Your task to perform on an android device: turn on wifi Image 0: 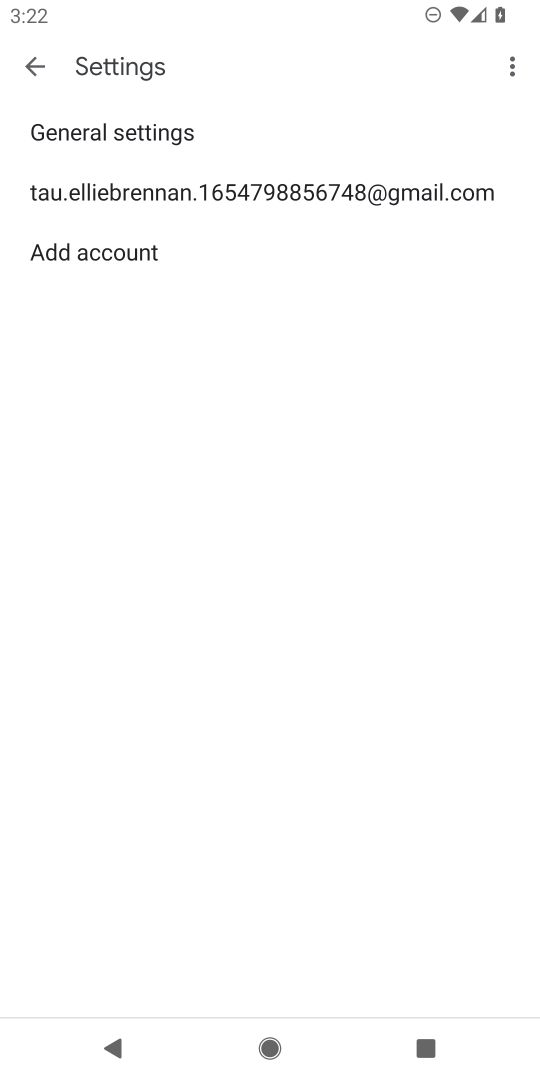
Step 0: press home button
Your task to perform on an android device: turn on wifi Image 1: 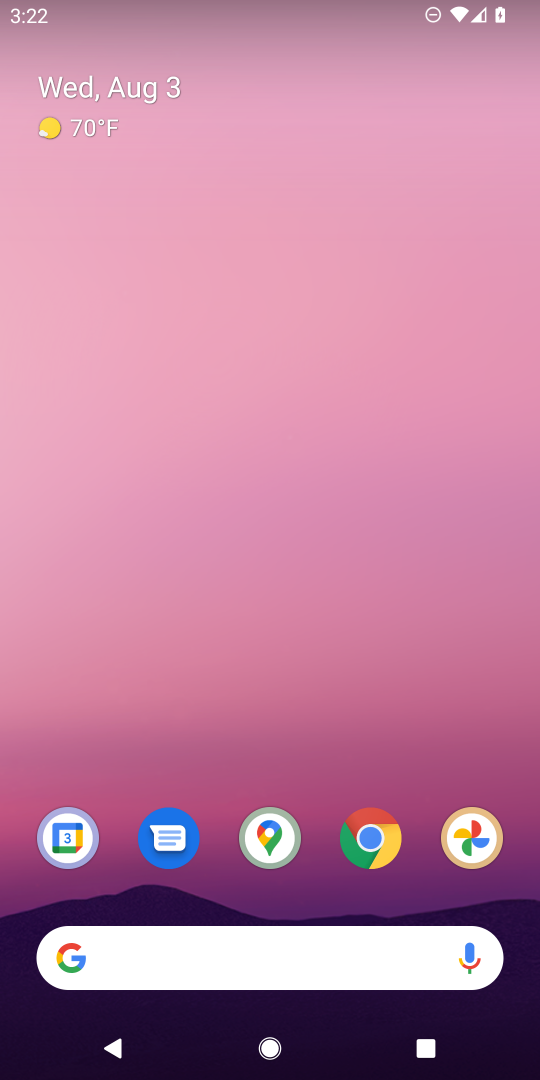
Step 1: drag from (210, 880) to (214, 266)
Your task to perform on an android device: turn on wifi Image 2: 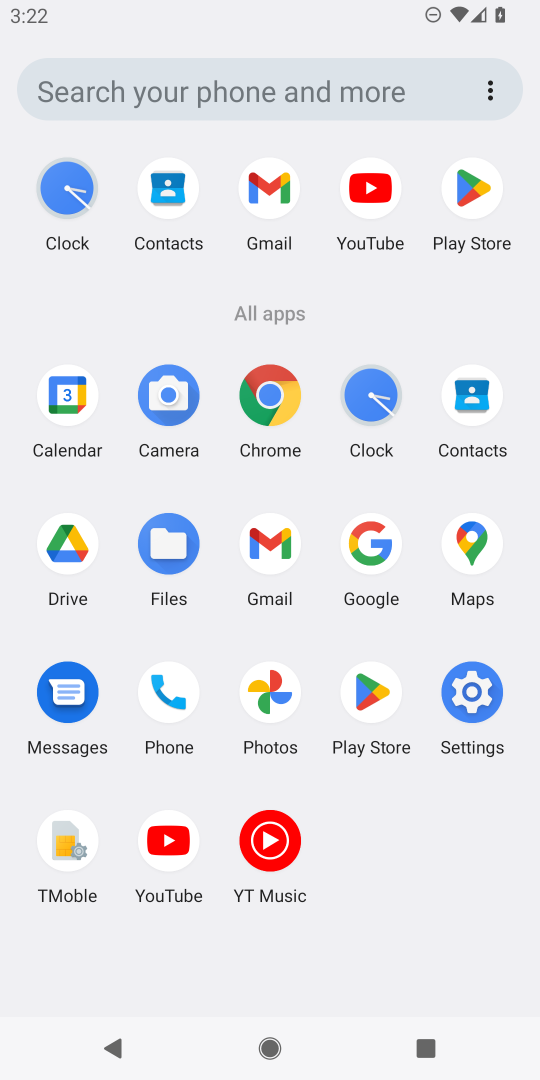
Step 2: click (497, 709)
Your task to perform on an android device: turn on wifi Image 3: 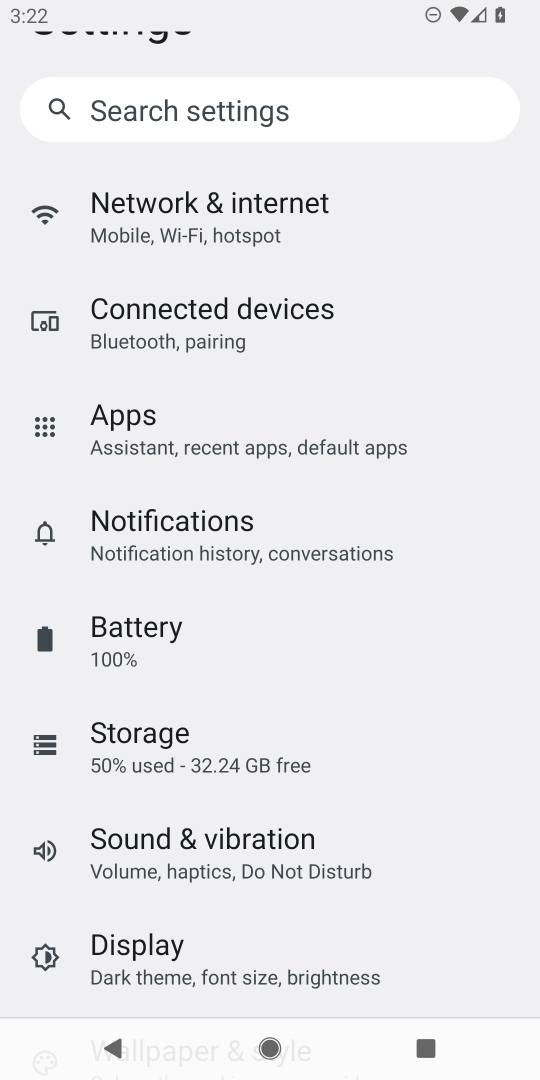
Step 3: click (228, 209)
Your task to perform on an android device: turn on wifi Image 4: 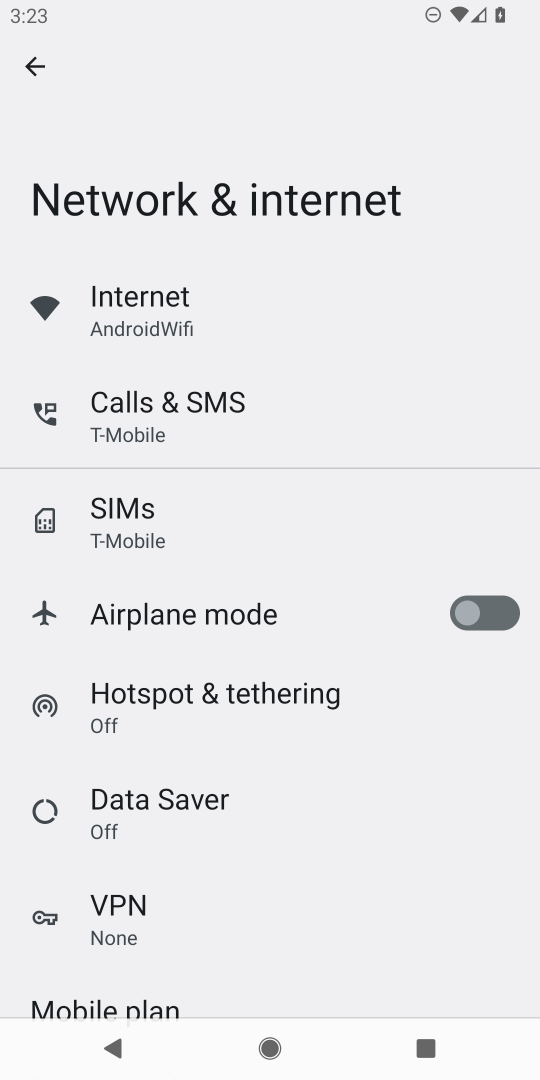
Step 4: click (235, 299)
Your task to perform on an android device: turn on wifi Image 5: 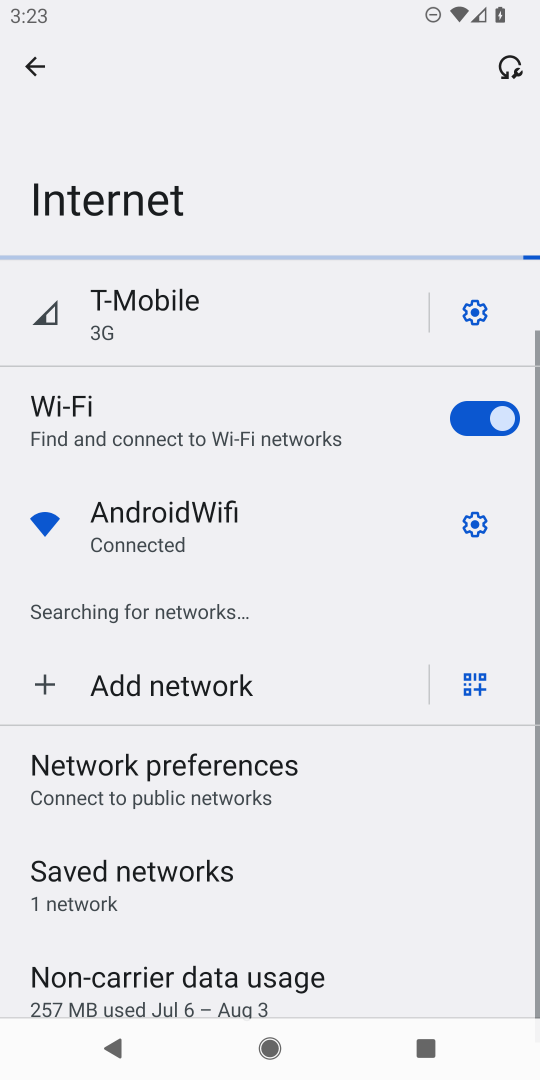
Step 5: task complete